Your task to perform on an android device: Add "logitech g903" to the cart on walmart.com Image 0: 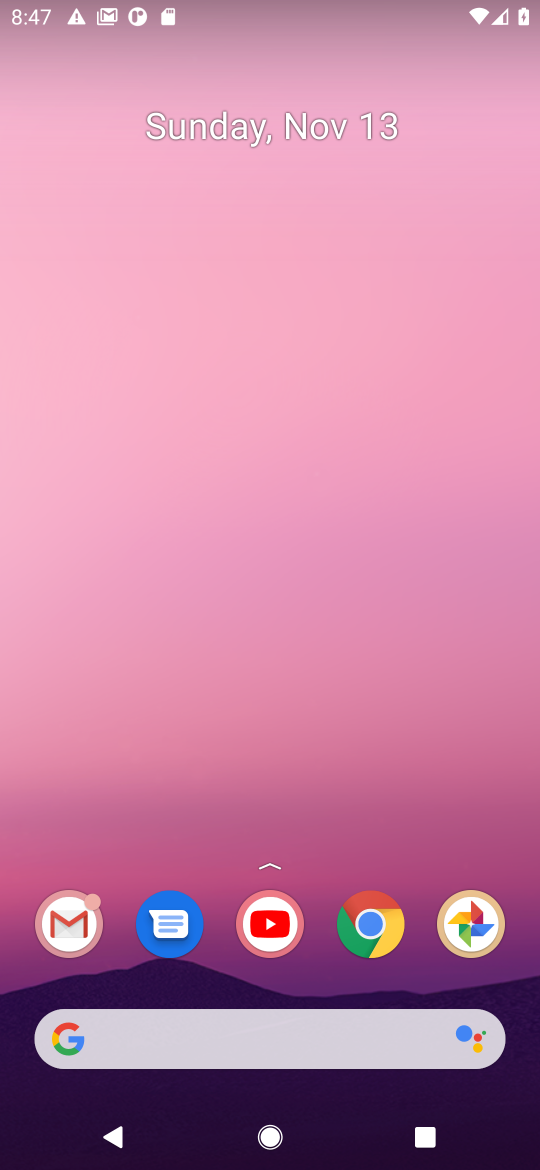
Step 0: click (376, 923)
Your task to perform on an android device: Add "logitech g903" to the cart on walmart.com Image 1: 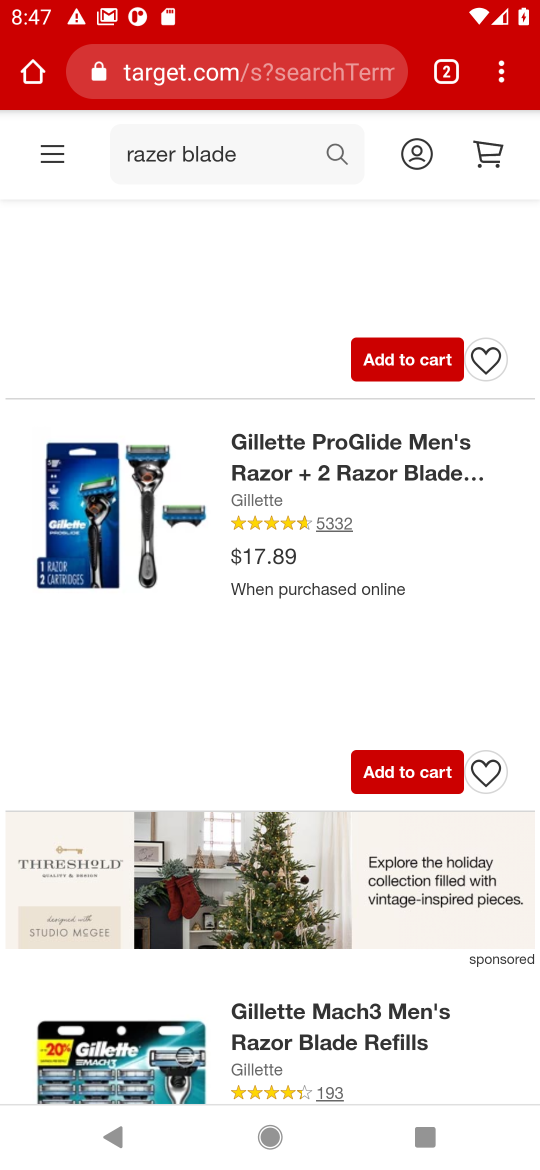
Step 1: click (317, 72)
Your task to perform on an android device: Add "logitech g903" to the cart on walmart.com Image 2: 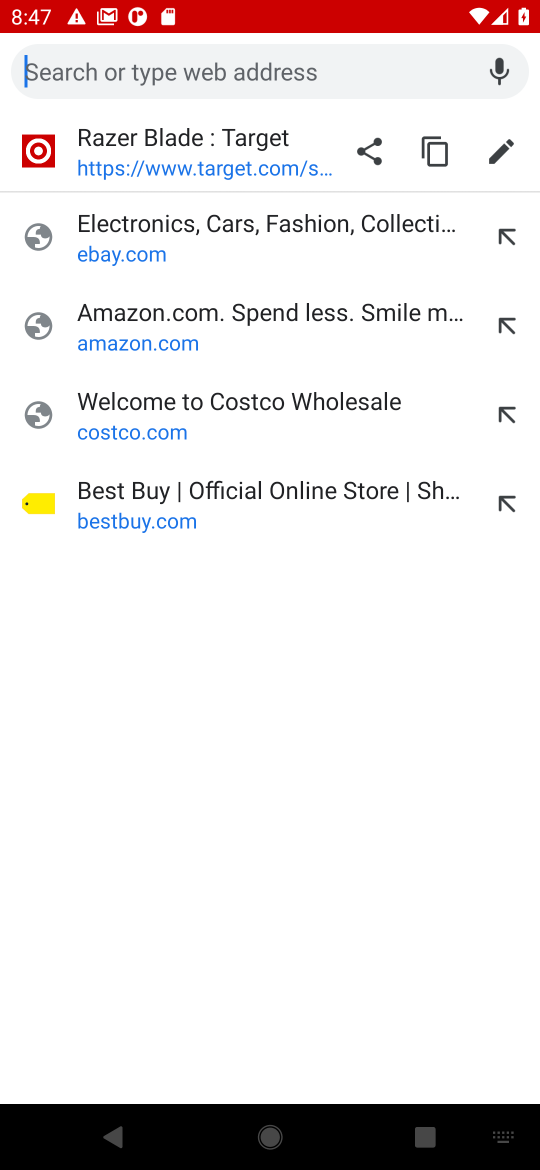
Step 2: type "walmart.com"
Your task to perform on an android device: Add "logitech g903" to the cart on walmart.com Image 3: 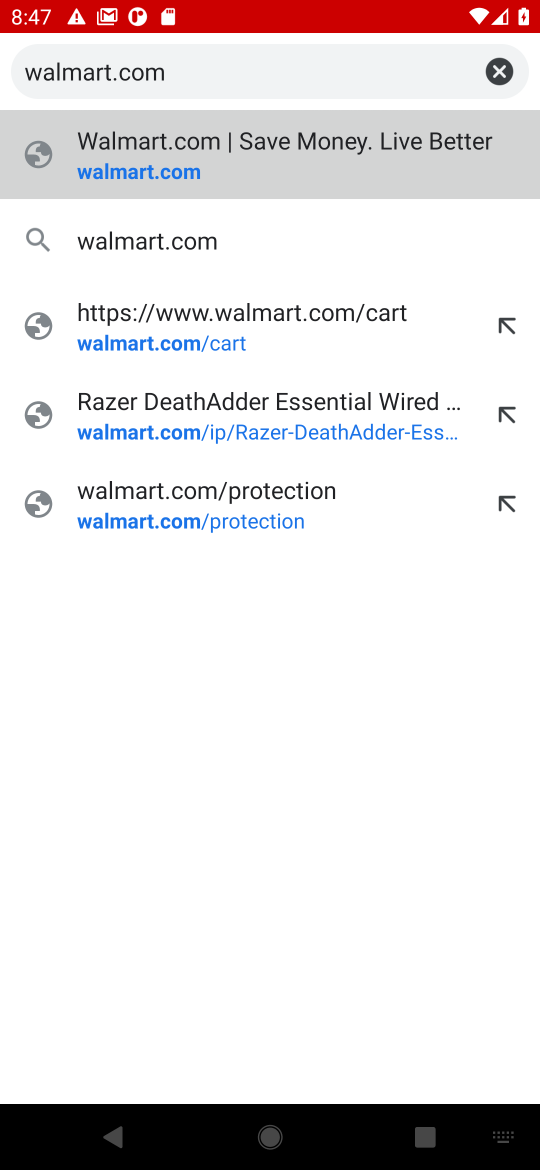
Step 3: click (138, 171)
Your task to perform on an android device: Add "logitech g903" to the cart on walmart.com Image 4: 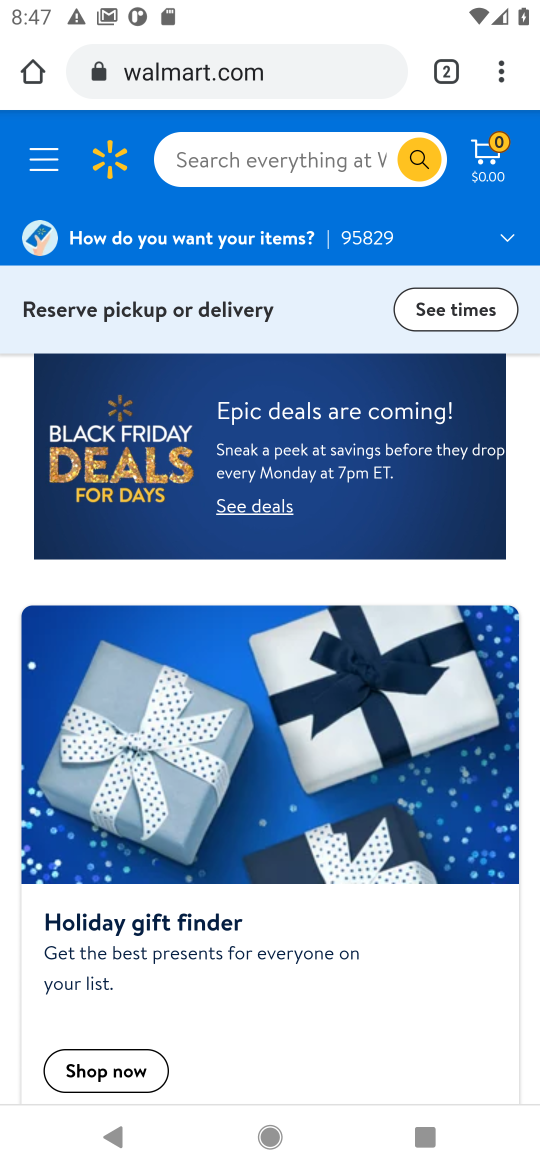
Step 4: click (184, 157)
Your task to perform on an android device: Add "logitech g903" to the cart on walmart.com Image 5: 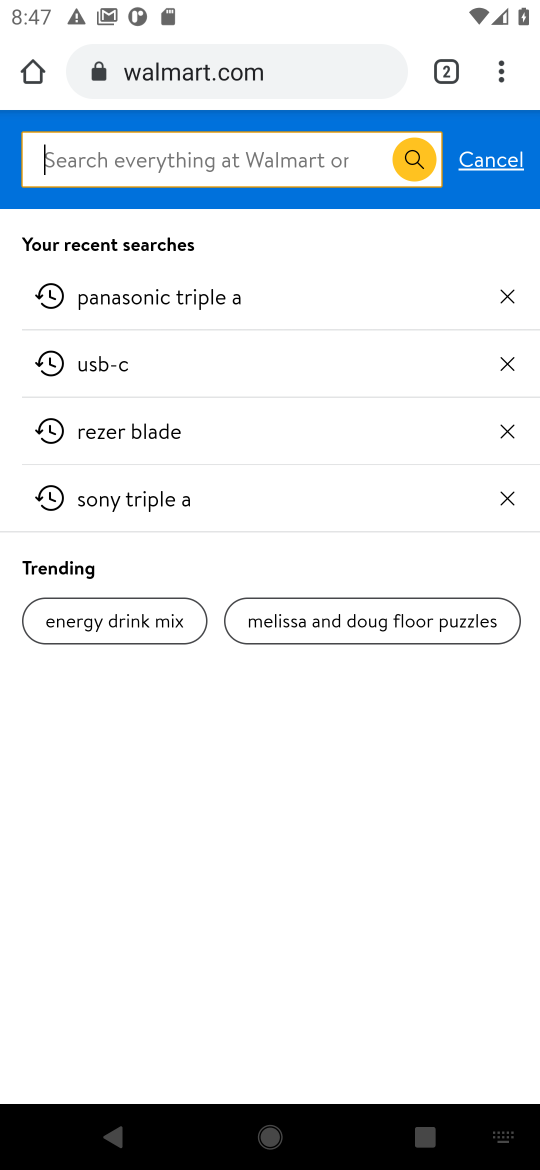
Step 5: type "logitech g903"
Your task to perform on an android device: Add "logitech g903" to the cart on walmart.com Image 6: 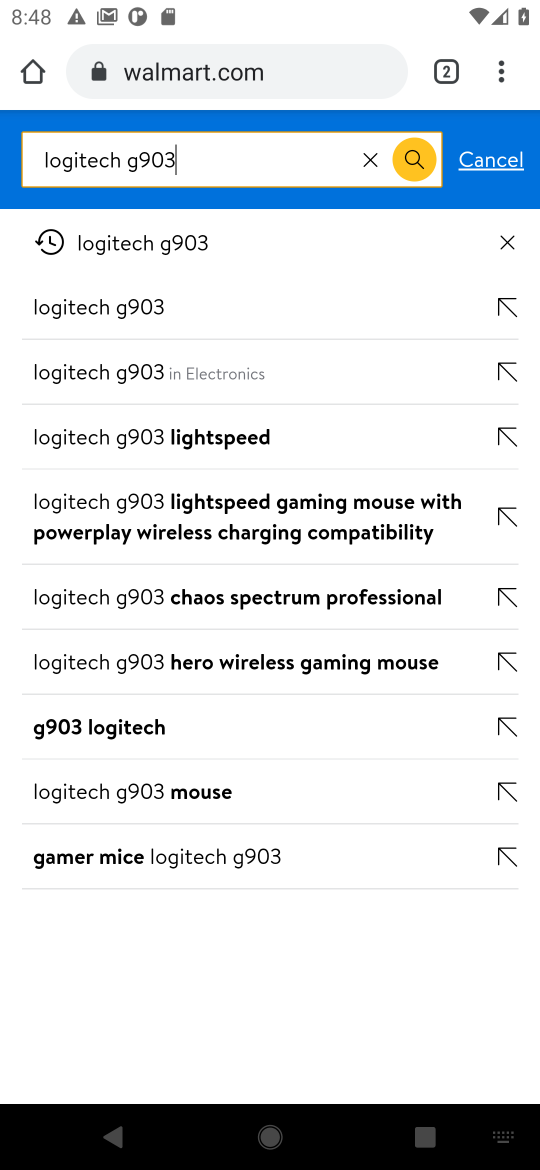
Step 6: click (143, 261)
Your task to perform on an android device: Add "logitech g903" to the cart on walmart.com Image 7: 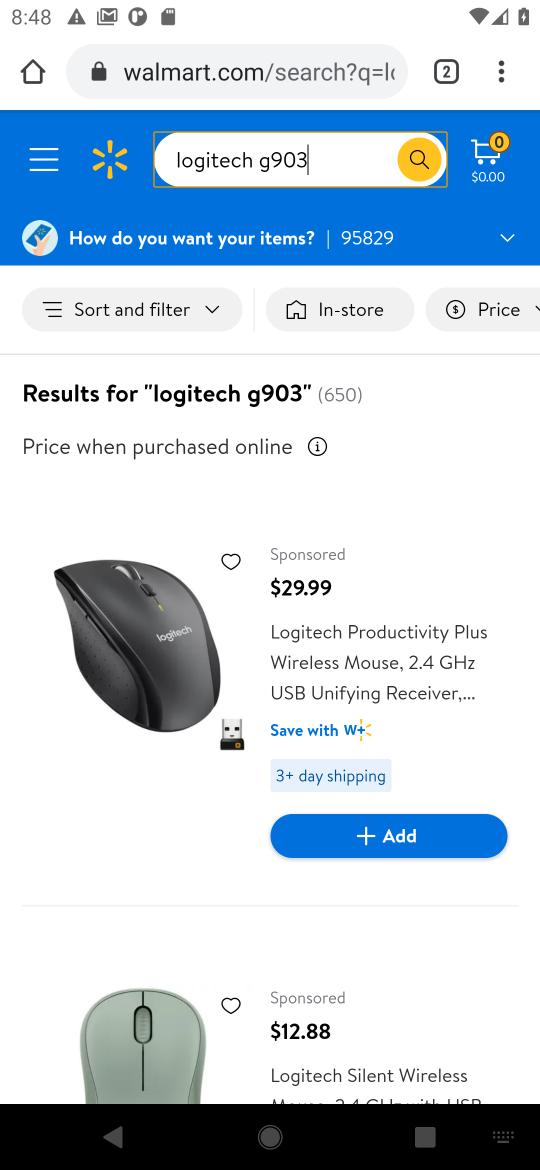
Step 7: drag from (258, 933) to (262, 460)
Your task to perform on an android device: Add "logitech g903" to the cart on walmart.com Image 8: 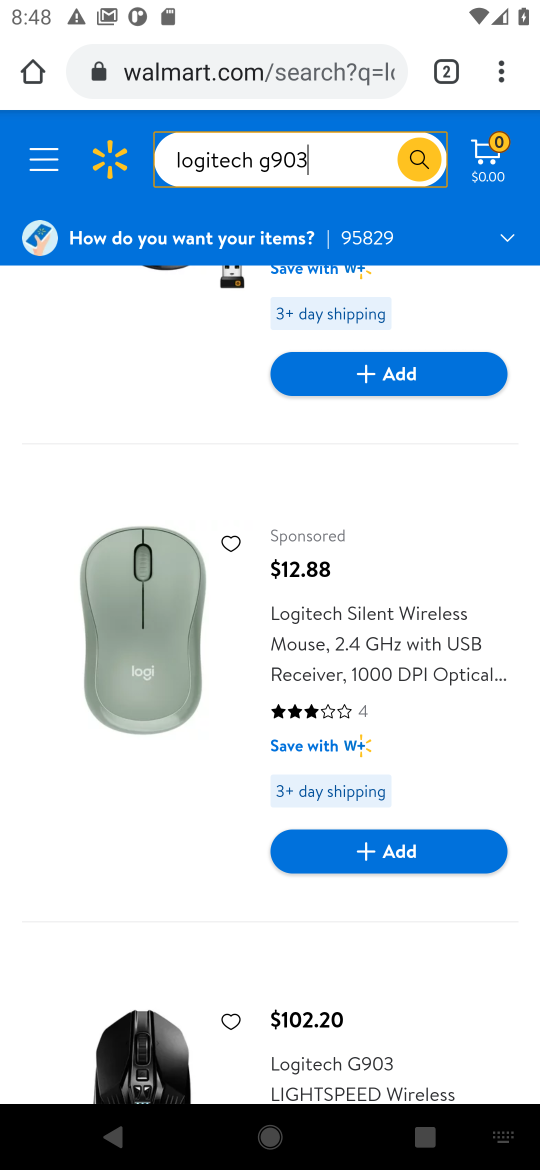
Step 8: drag from (155, 808) to (157, 505)
Your task to perform on an android device: Add "logitech g903" to the cart on walmart.com Image 9: 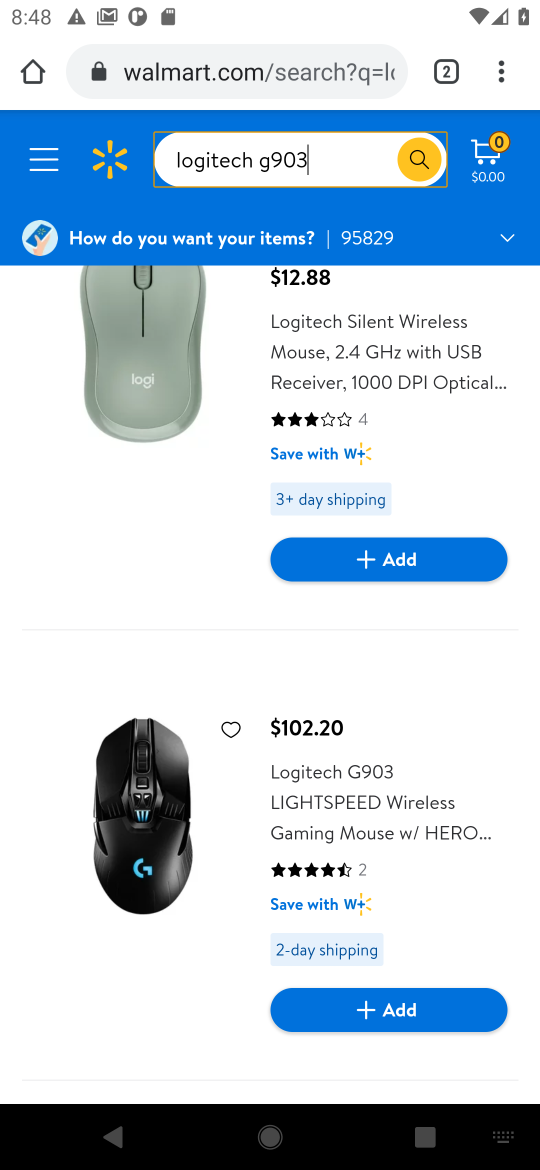
Step 9: click (380, 1015)
Your task to perform on an android device: Add "logitech g903" to the cart on walmart.com Image 10: 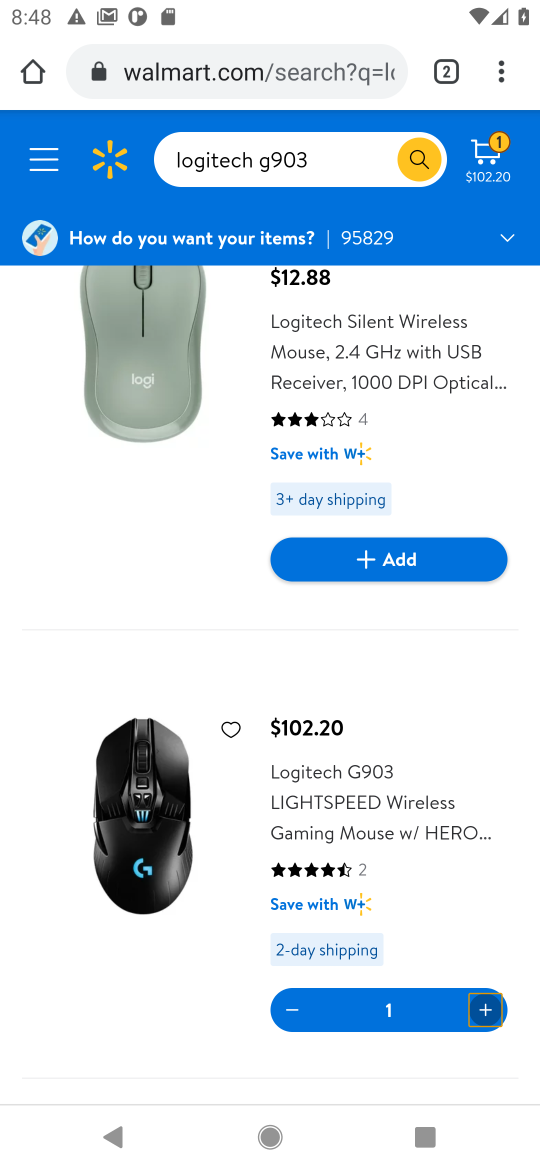
Step 10: task complete